Your task to perform on an android device: Go to Google Image 0: 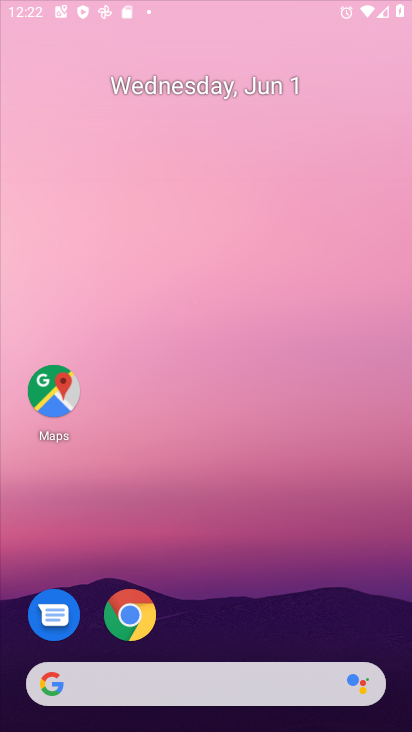
Step 0: click (350, 5)
Your task to perform on an android device: Go to Google Image 1: 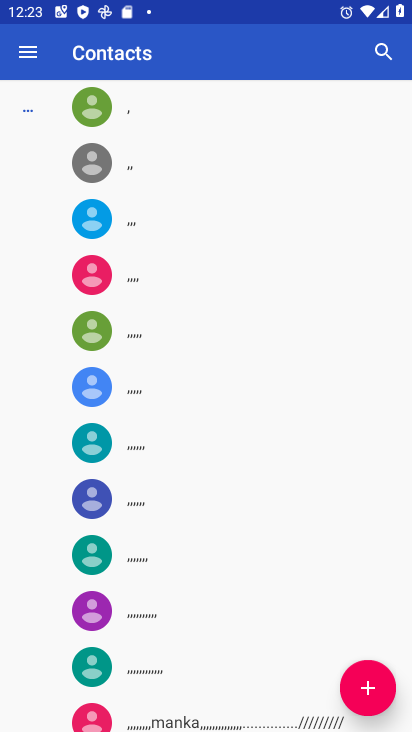
Step 1: press home button
Your task to perform on an android device: Go to Google Image 2: 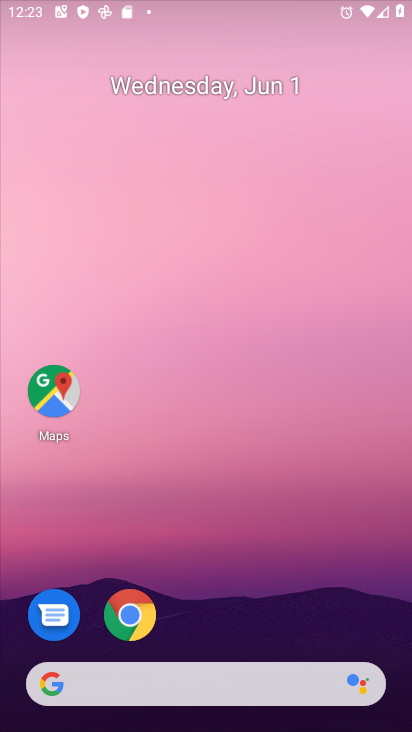
Step 2: drag from (311, 564) to (252, 22)
Your task to perform on an android device: Go to Google Image 3: 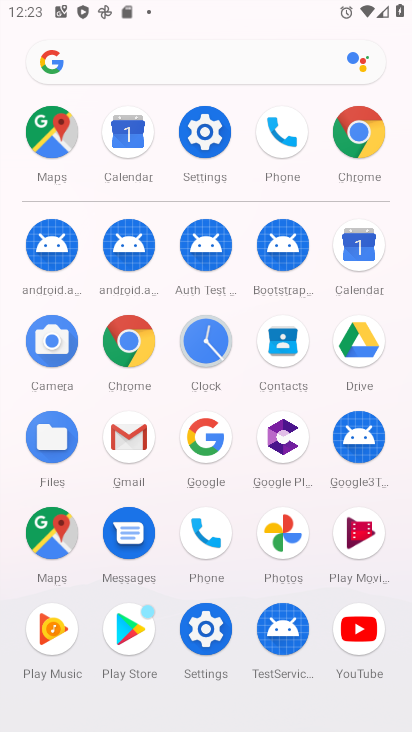
Step 3: click (195, 444)
Your task to perform on an android device: Go to Google Image 4: 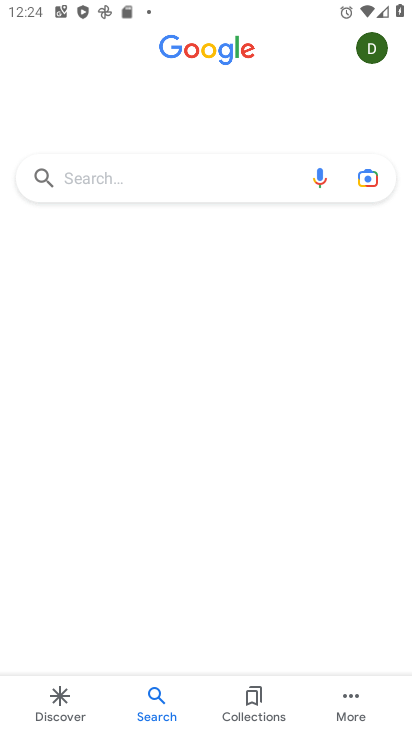
Step 4: task complete